Your task to perform on an android device: turn off wifi Image 0: 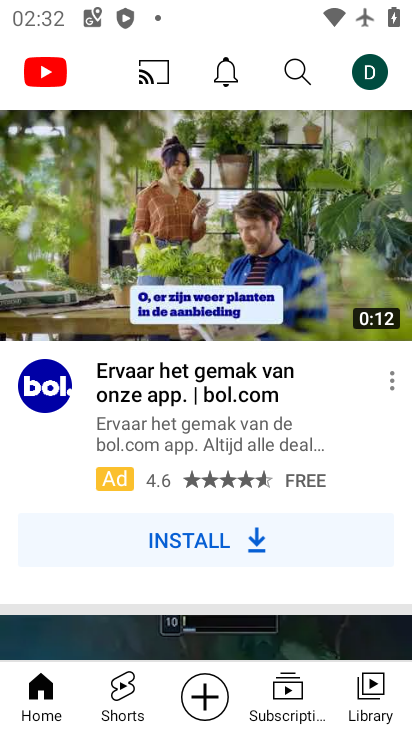
Step 0: press home button
Your task to perform on an android device: turn off wifi Image 1: 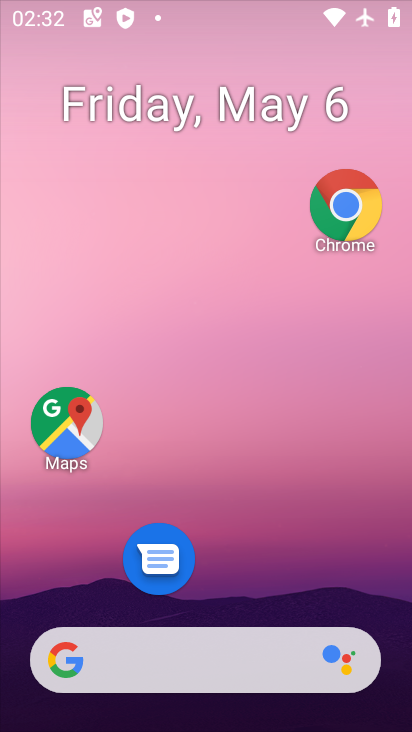
Step 1: drag from (234, 576) to (319, 53)
Your task to perform on an android device: turn off wifi Image 2: 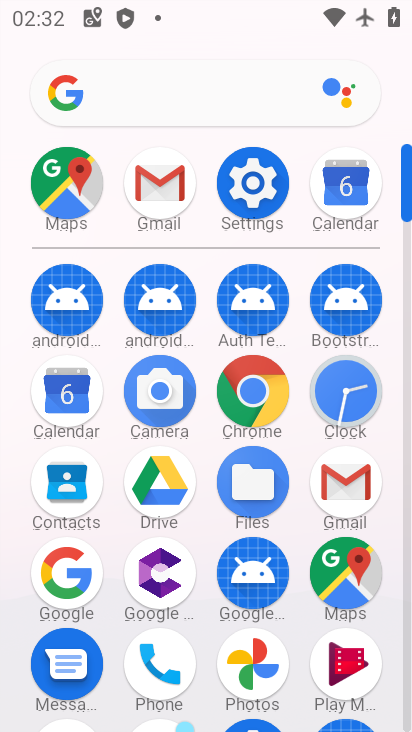
Step 2: click (261, 186)
Your task to perform on an android device: turn off wifi Image 3: 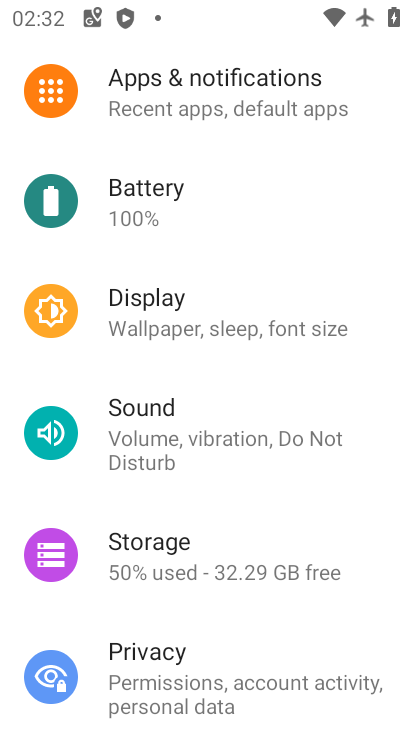
Step 3: drag from (342, 71) to (191, 495)
Your task to perform on an android device: turn off wifi Image 4: 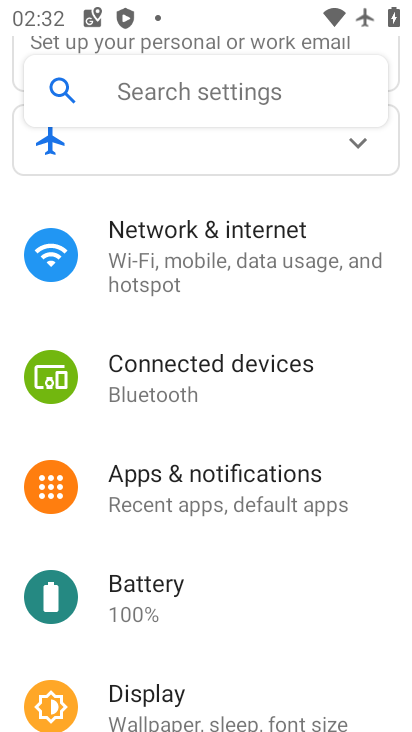
Step 4: click (252, 246)
Your task to perform on an android device: turn off wifi Image 5: 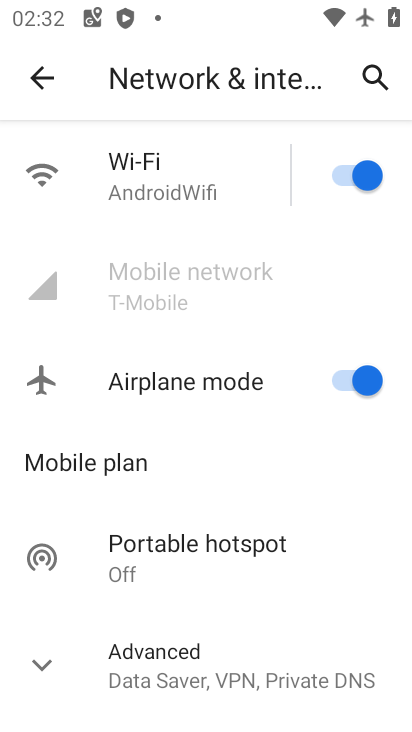
Step 5: click (338, 175)
Your task to perform on an android device: turn off wifi Image 6: 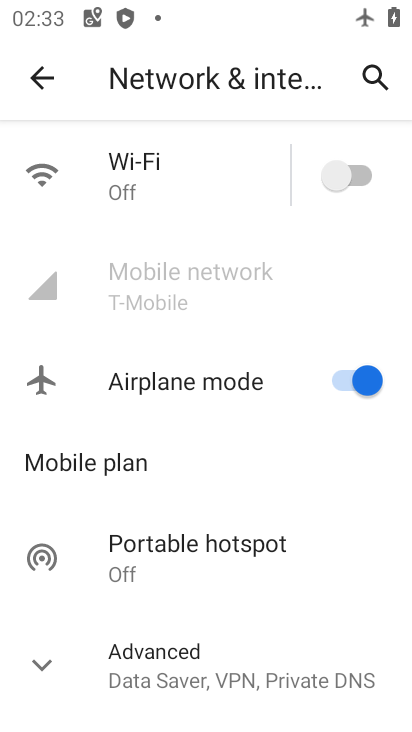
Step 6: task complete